Your task to perform on an android device: Go to CNN.com Image 0: 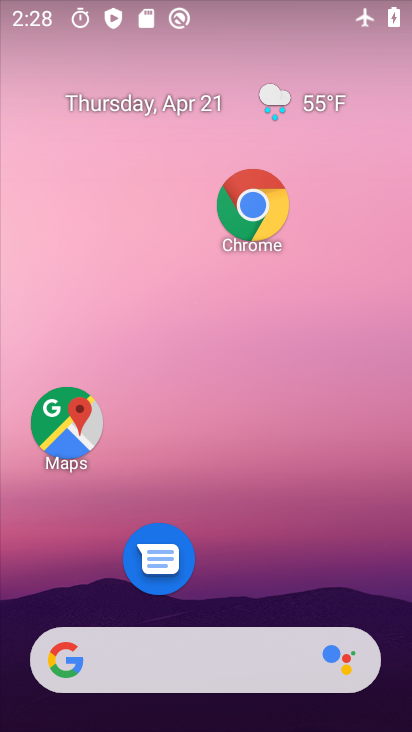
Step 0: click (152, 79)
Your task to perform on an android device: Go to CNN.com Image 1: 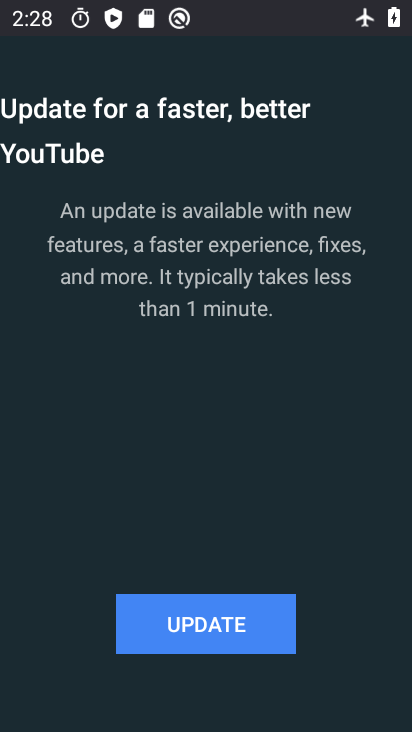
Step 1: press home button
Your task to perform on an android device: Go to CNN.com Image 2: 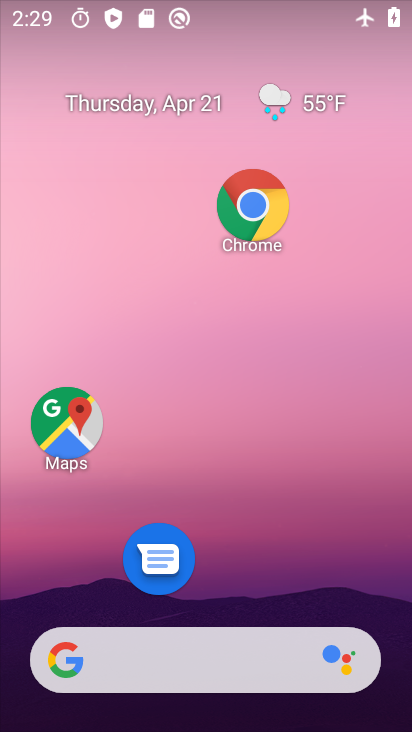
Step 2: drag from (226, 612) to (13, 298)
Your task to perform on an android device: Go to CNN.com Image 3: 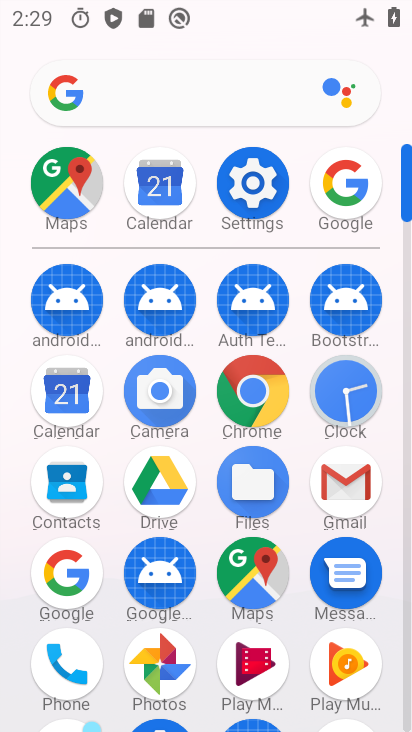
Step 3: click (245, 398)
Your task to perform on an android device: Go to CNN.com Image 4: 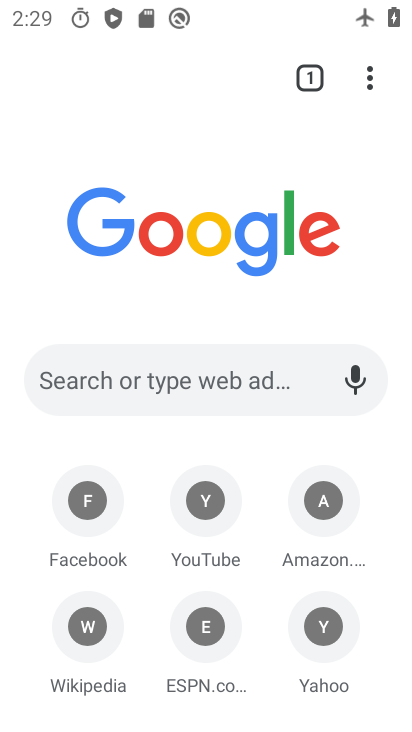
Step 4: drag from (275, 616) to (252, 177)
Your task to perform on an android device: Go to CNN.com Image 5: 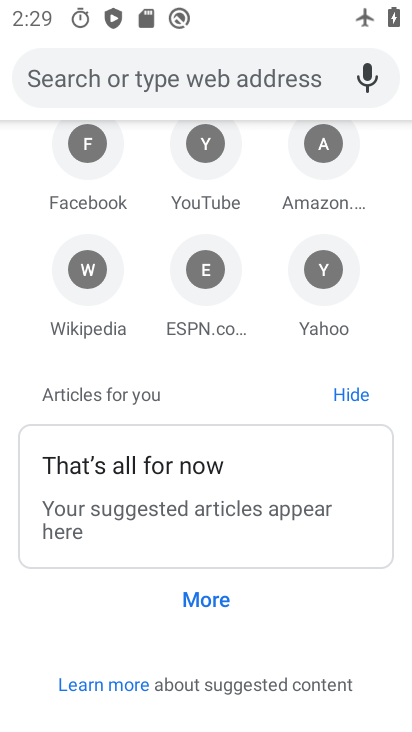
Step 5: click (196, 81)
Your task to perform on an android device: Go to CNN.com Image 6: 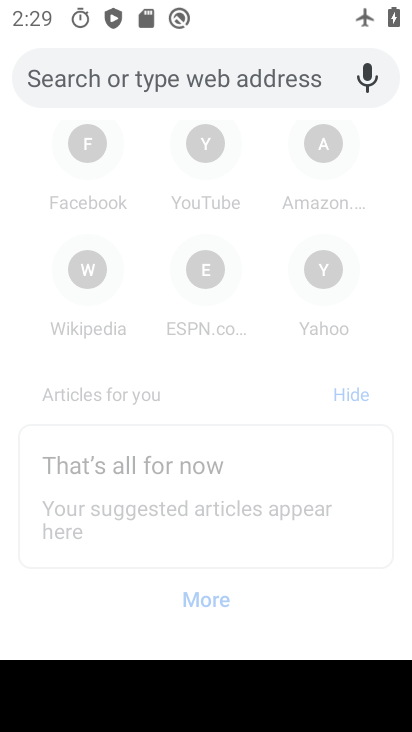
Step 6: type "cnn.com"
Your task to perform on an android device: Go to CNN.com Image 7: 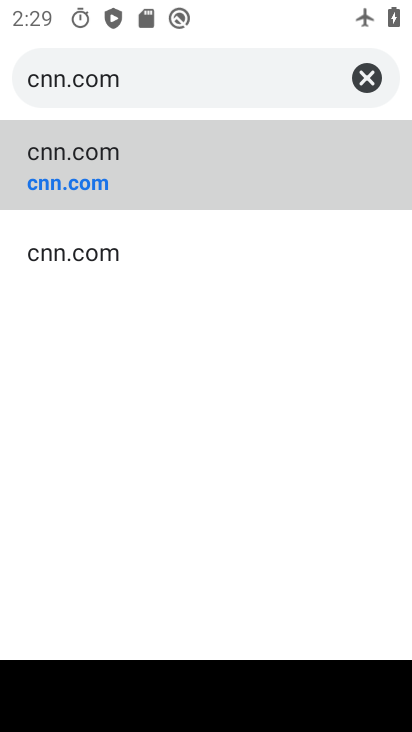
Step 7: click (222, 178)
Your task to perform on an android device: Go to CNN.com Image 8: 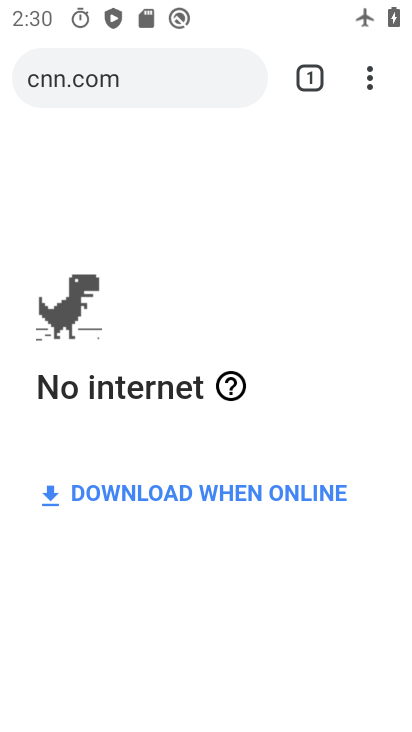
Step 8: task complete